Your task to perform on an android device: Find coffee shops on Maps Image 0: 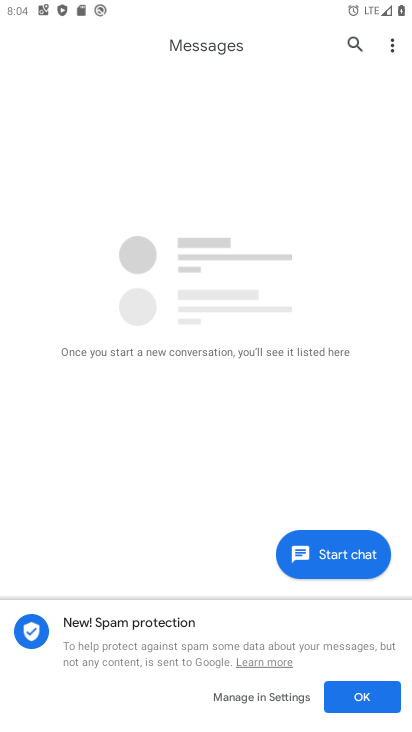
Step 0: press home button
Your task to perform on an android device: Find coffee shops on Maps Image 1: 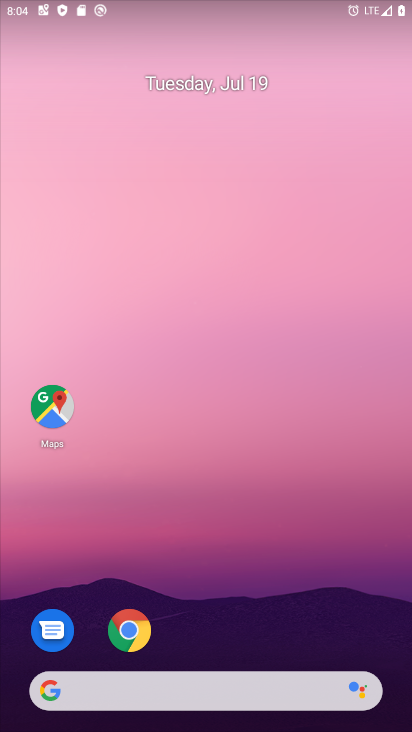
Step 1: drag from (235, 620) to (191, 109)
Your task to perform on an android device: Find coffee shops on Maps Image 2: 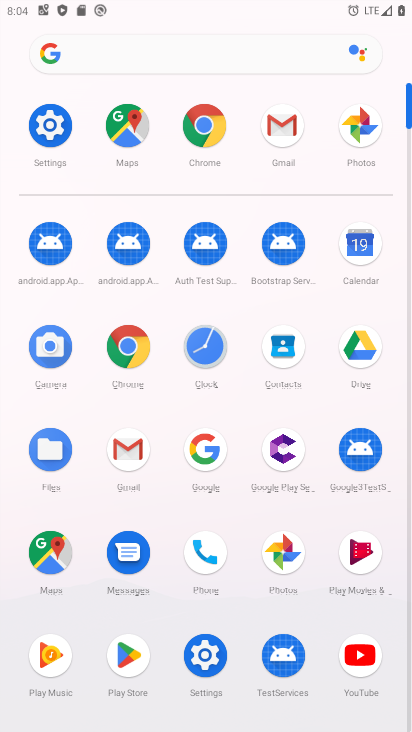
Step 2: click (121, 133)
Your task to perform on an android device: Find coffee shops on Maps Image 3: 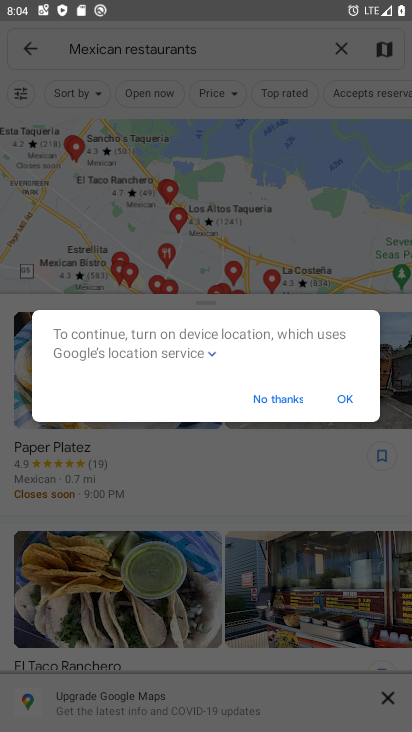
Step 3: click (275, 391)
Your task to perform on an android device: Find coffee shops on Maps Image 4: 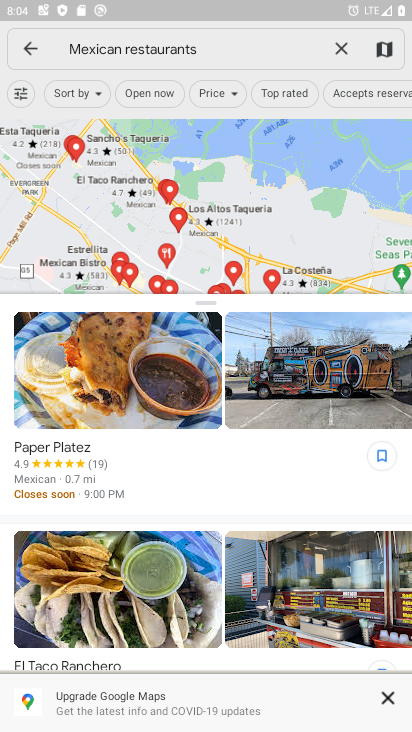
Step 4: click (348, 41)
Your task to perform on an android device: Find coffee shops on Maps Image 5: 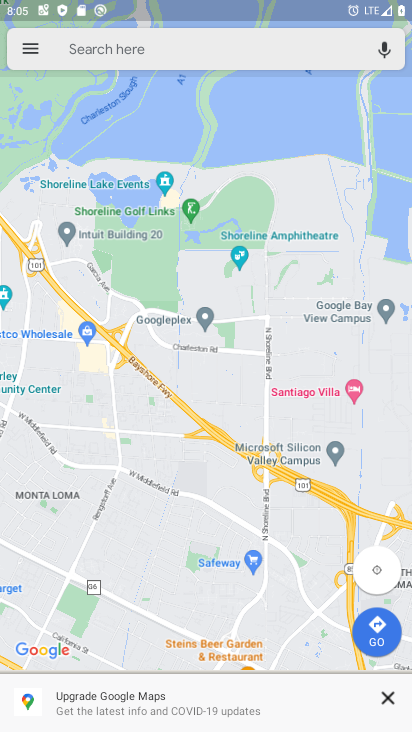
Step 5: click (237, 48)
Your task to perform on an android device: Find coffee shops on Maps Image 6: 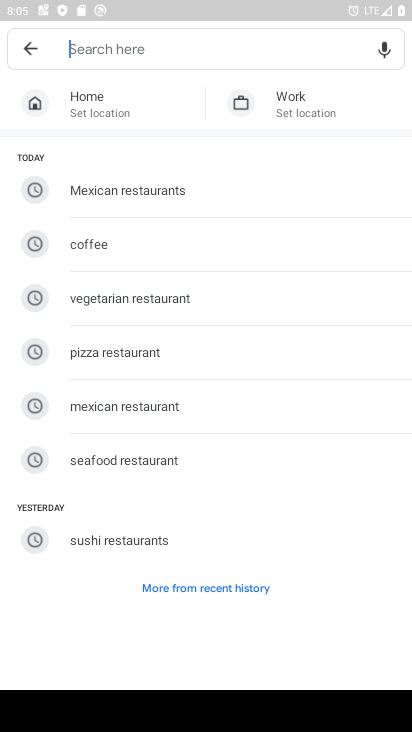
Step 6: type "coffee"
Your task to perform on an android device: Find coffee shops on Maps Image 7: 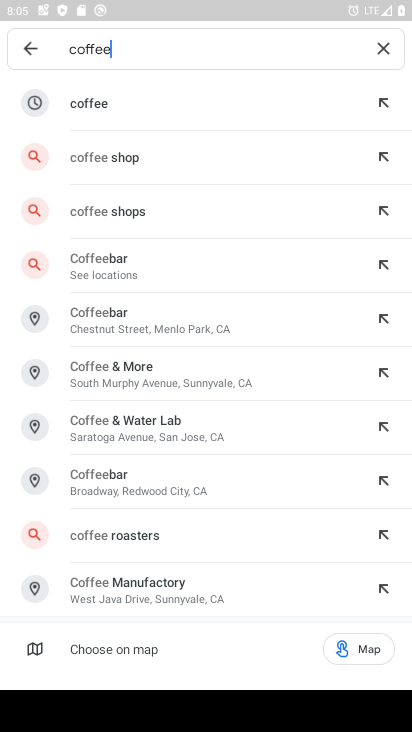
Step 7: click (150, 101)
Your task to perform on an android device: Find coffee shops on Maps Image 8: 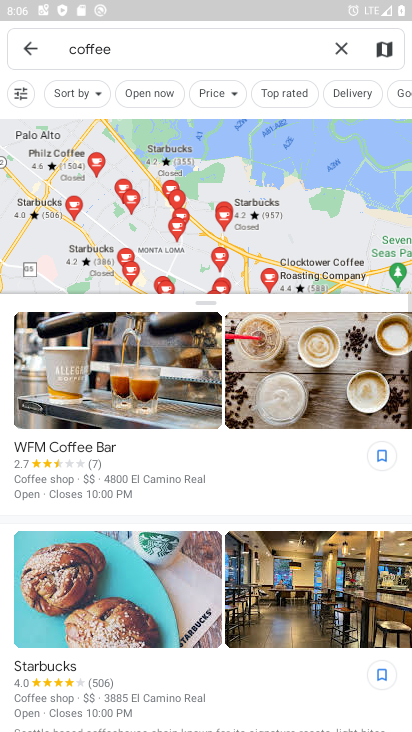
Step 8: type " shops"
Your task to perform on an android device: Find coffee shops on Maps Image 9: 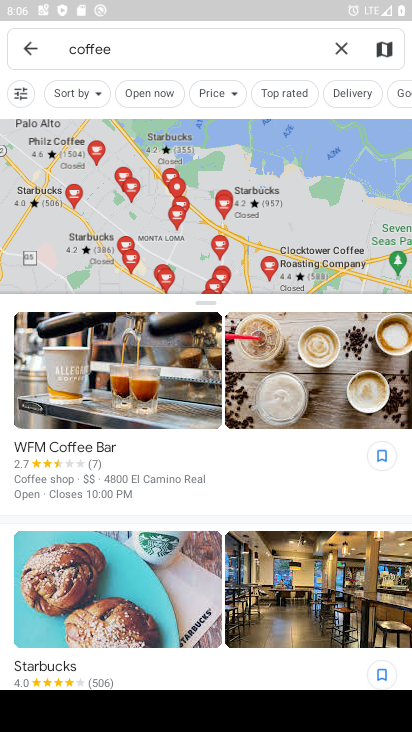
Step 9: click (248, 54)
Your task to perform on an android device: Find coffee shops on Maps Image 10: 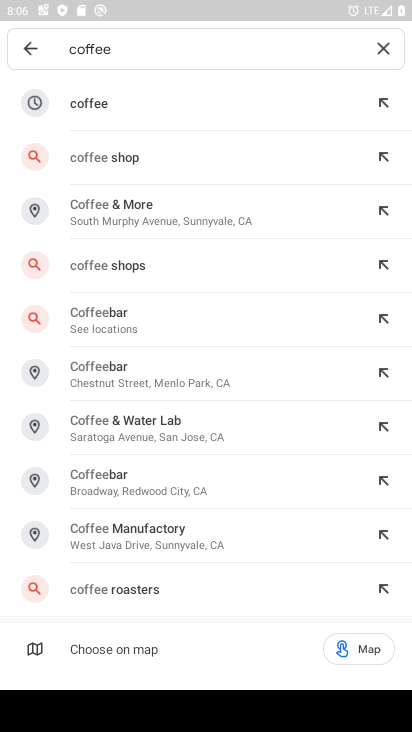
Step 10: click (200, 161)
Your task to perform on an android device: Find coffee shops on Maps Image 11: 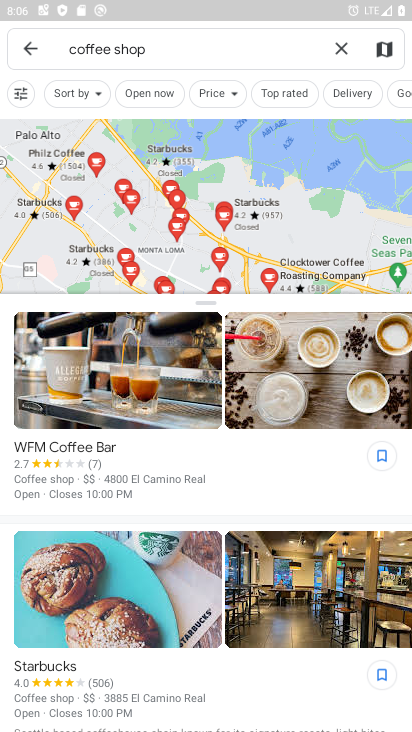
Step 11: task complete